Your task to perform on an android device: stop showing notifications on the lock screen Image 0: 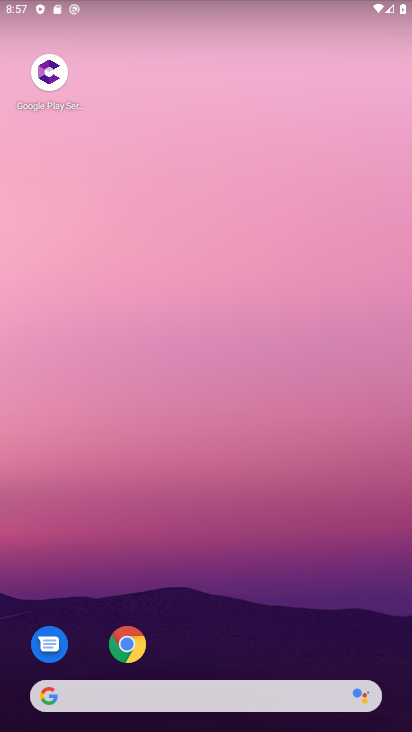
Step 0: drag from (324, 677) to (315, 15)
Your task to perform on an android device: stop showing notifications on the lock screen Image 1: 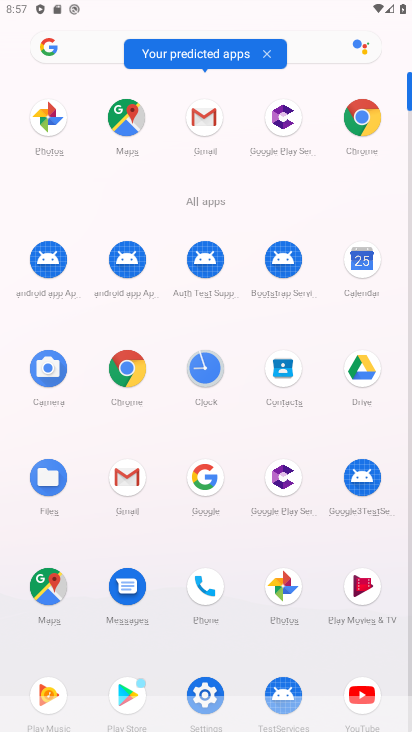
Step 1: click (206, 688)
Your task to perform on an android device: stop showing notifications on the lock screen Image 2: 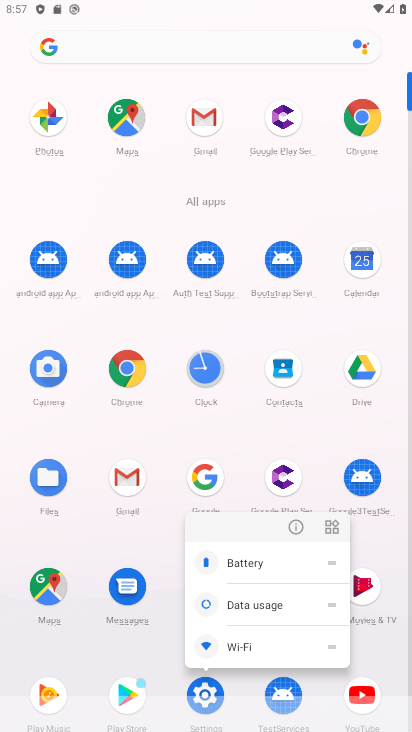
Step 2: click (206, 688)
Your task to perform on an android device: stop showing notifications on the lock screen Image 3: 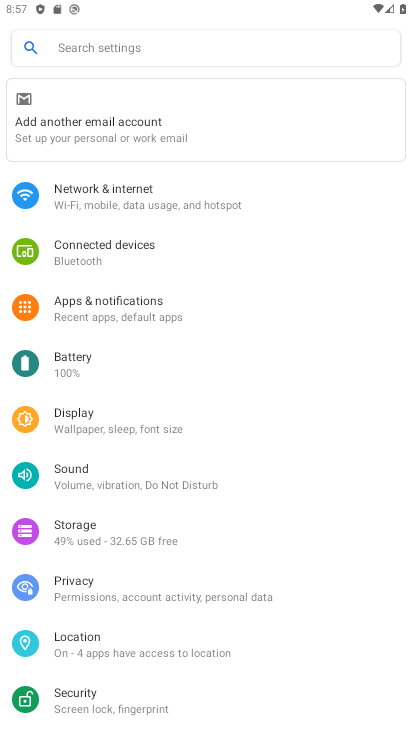
Step 3: click (106, 307)
Your task to perform on an android device: stop showing notifications on the lock screen Image 4: 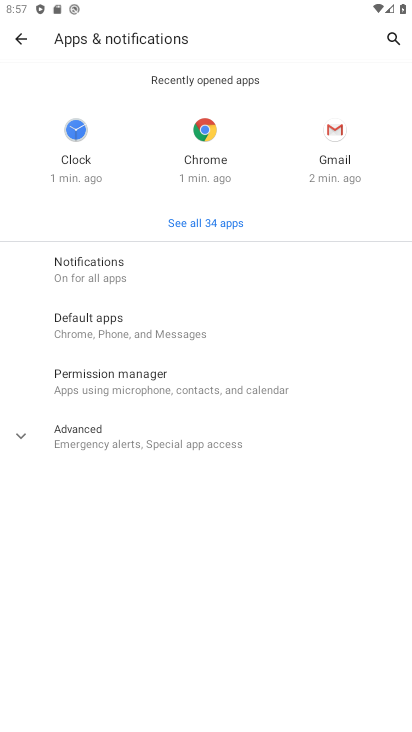
Step 4: click (85, 273)
Your task to perform on an android device: stop showing notifications on the lock screen Image 5: 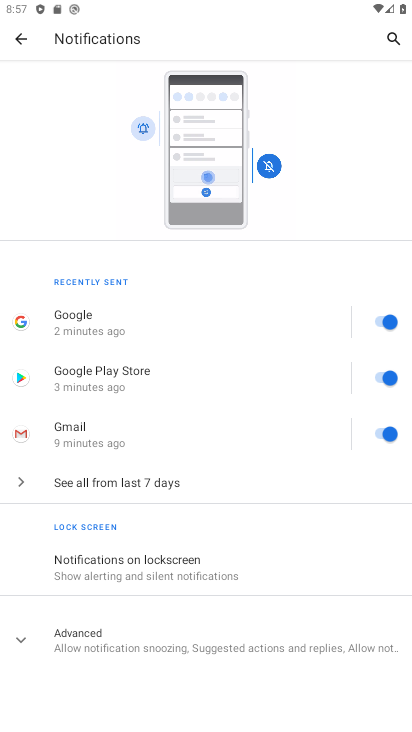
Step 5: click (91, 569)
Your task to perform on an android device: stop showing notifications on the lock screen Image 6: 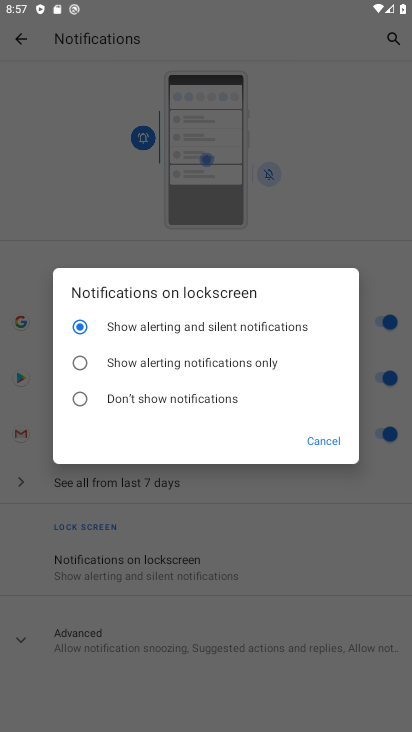
Step 6: click (83, 389)
Your task to perform on an android device: stop showing notifications on the lock screen Image 7: 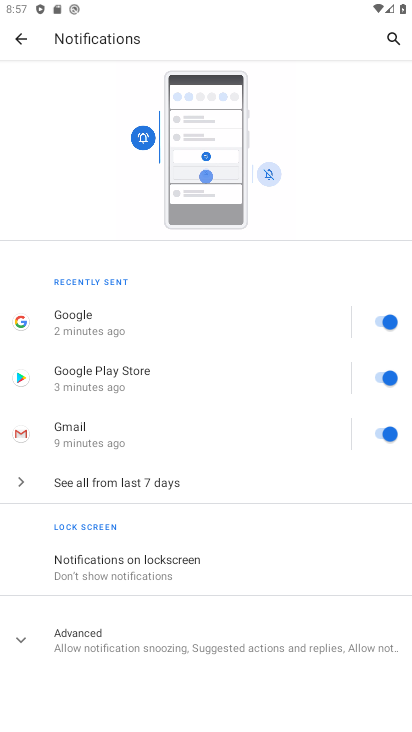
Step 7: task complete